Your task to perform on an android device: open a new tab in the chrome app Image 0: 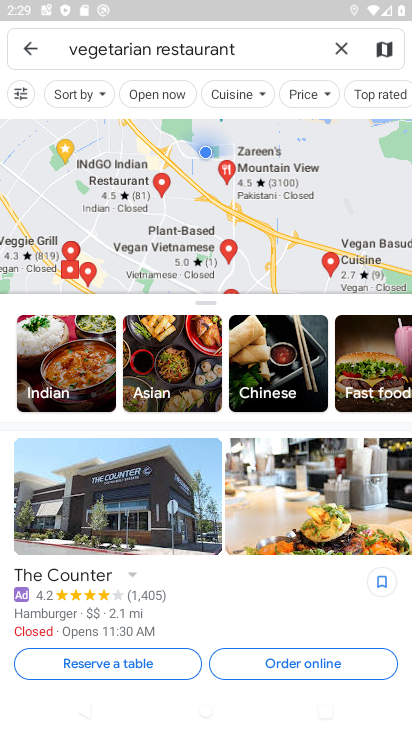
Step 0: press home button
Your task to perform on an android device: open a new tab in the chrome app Image 1: 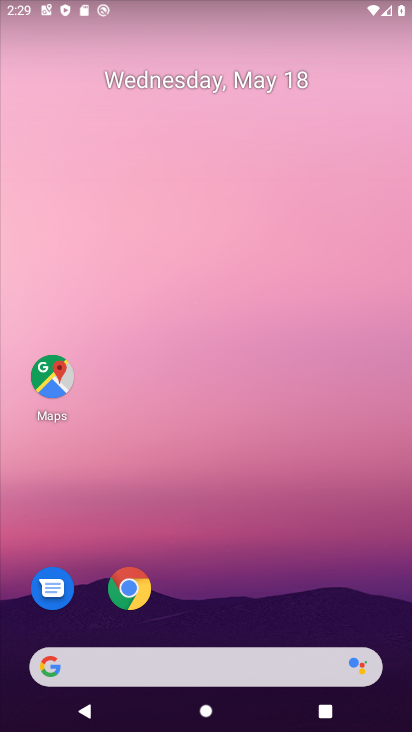
Step 1: drag from (326, 613) to (356, 121)
Your task to perform on an android device: open a new tab in the chrome app Image 2: 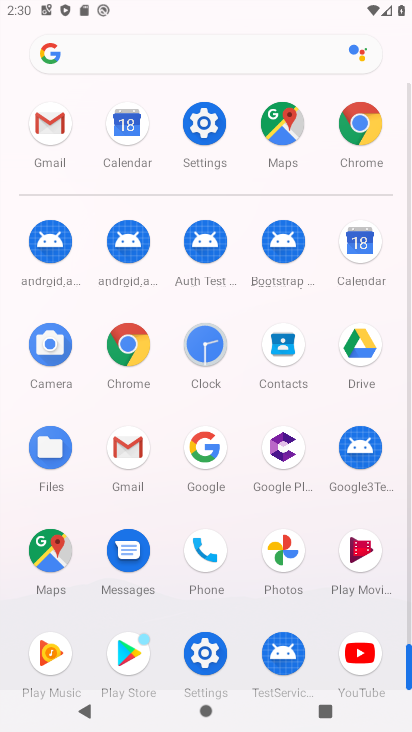
Step 2: click (356, 131)
Your task to perform on an android device: open a new tab in the chrome app Image 3: 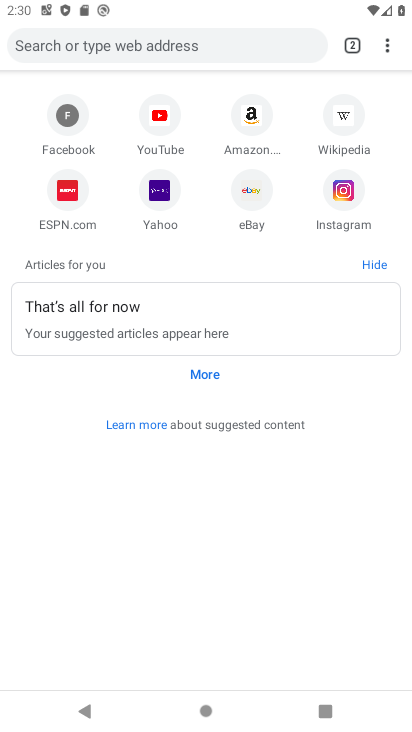
Step 3: click (387, 50)
Your task to perform on an android device: open a new tab in the chrome app Image 4: 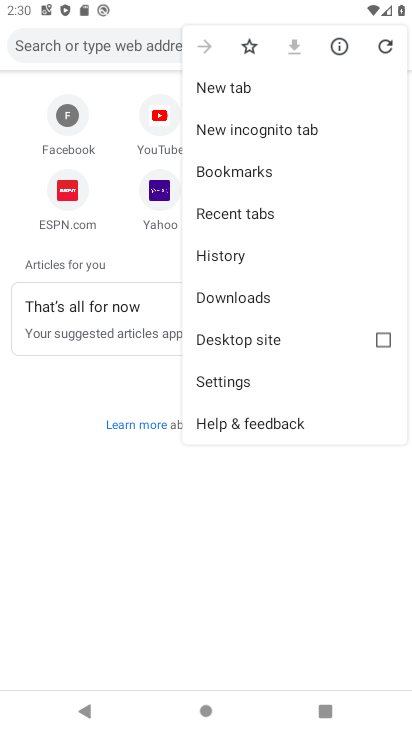
Step 4: click (274, 89)
Your task to perform on an android device: open a new tab in the chrome app Image 5: 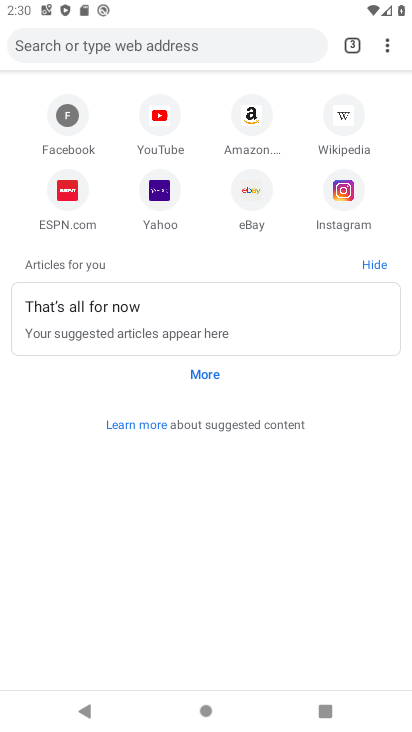
Step 5: task complete